Your task to perform on an android device: turn smart compose on in the gmail app Image 0: 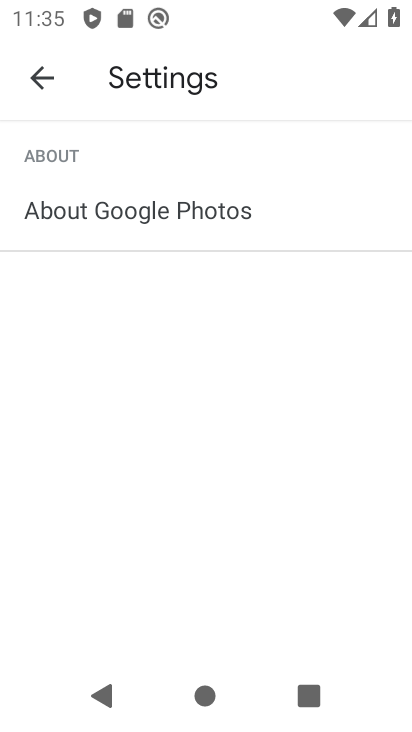
Step 0: press home button
Your task to perform on an android device: turn smart compose on in the gmail app Image 1: 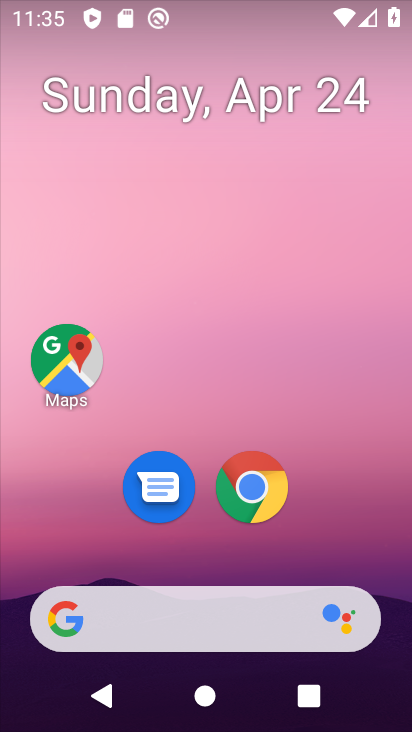
Step 1: drag from (399, 631) to (351, 75)
Your task to perform on an android device: turn smart compose on in the gmail app Image 2: 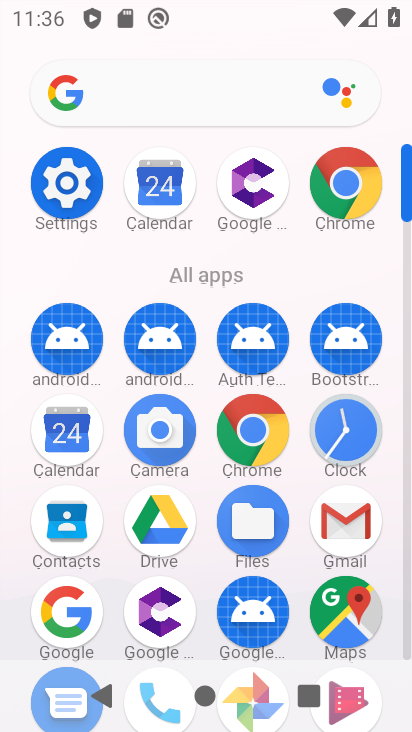
Step 2: click (344, 535)
Your task to perform on an android device: turn smart compose on in the gmail app Image 3: 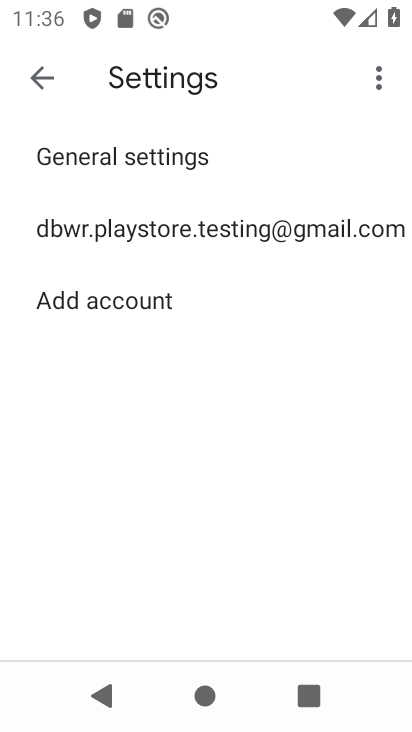
Step 3: click (284, 222)
Your task to perform on an android device: turn smart compose on in the gmail app Image 4: 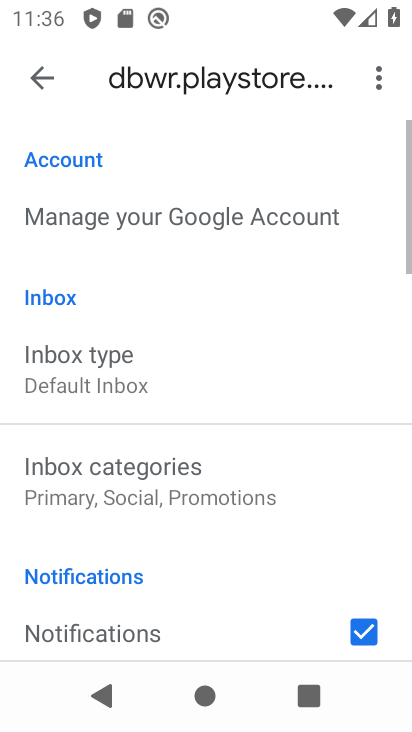
Step 4: task complete